Your task to perform on an android device: turn on location history Image 0: 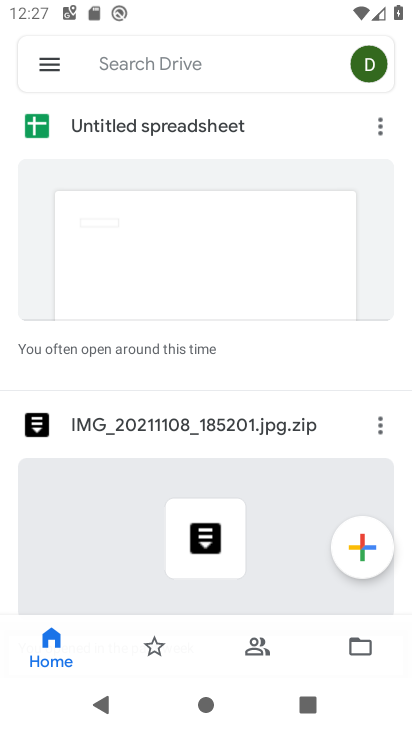
Step 0: press home button
Your task to perform on an android device: turn on location history Image 1: 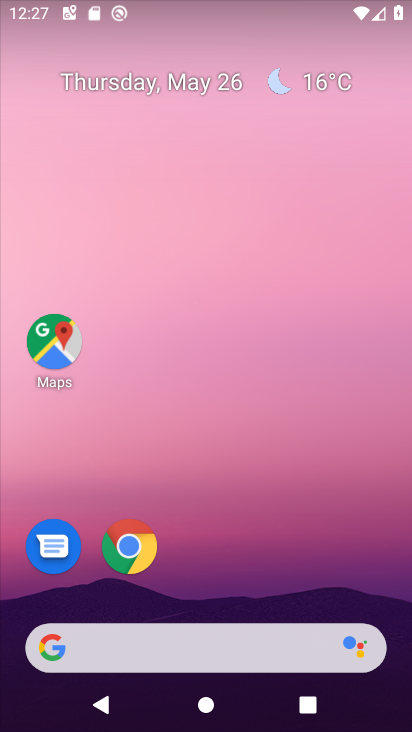
Step 1: drag from (172, 579) to (238, 194)
Your task to perform on an android device: turn on location history Image 2: 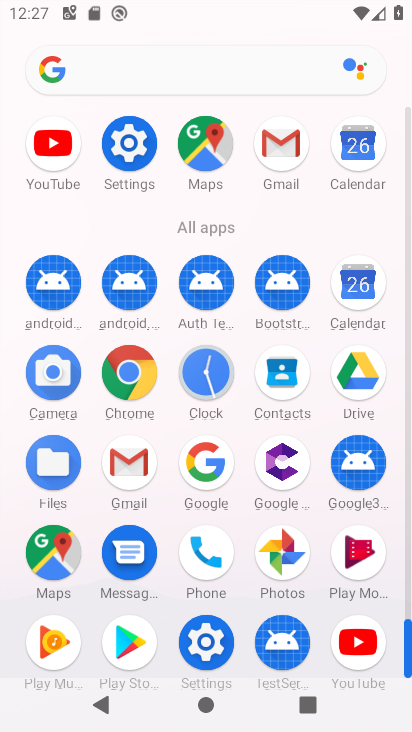
Step 2: click (124, 145)
Your task to perform on an android device: turn on location history Image 3: 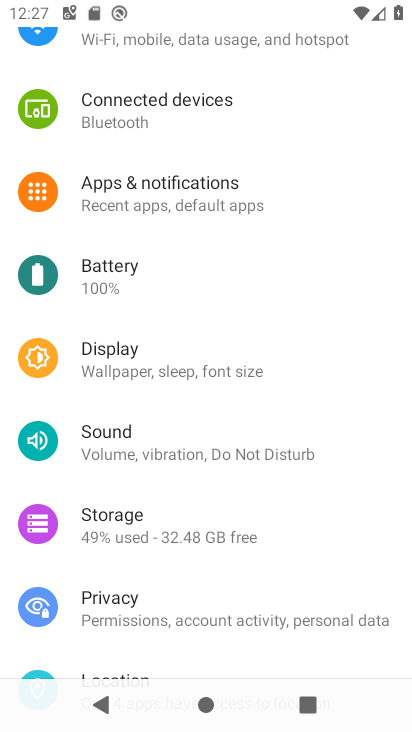
Step 3: drag from (134, 646) to (212, 285)
Your task to perform on an android device: turn on location history Image 4: 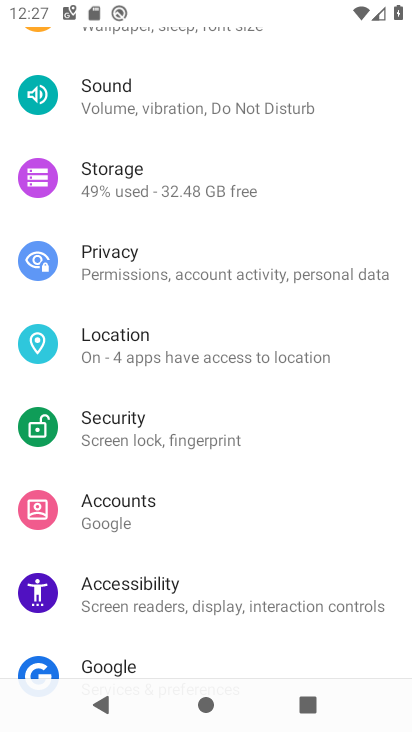
Step 4: click (153, 348)
Your task to perform on an android device: turn on location history Image 5: 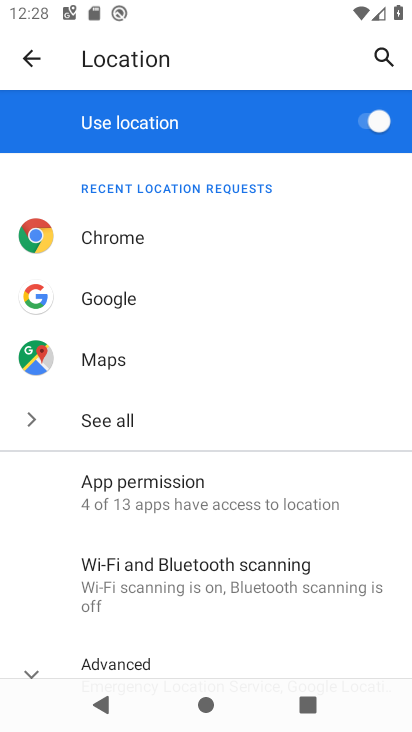
Step 5: drag from (96, 593) to (153, 262)
Your task to perform on an android device: turn on location history Image 6: 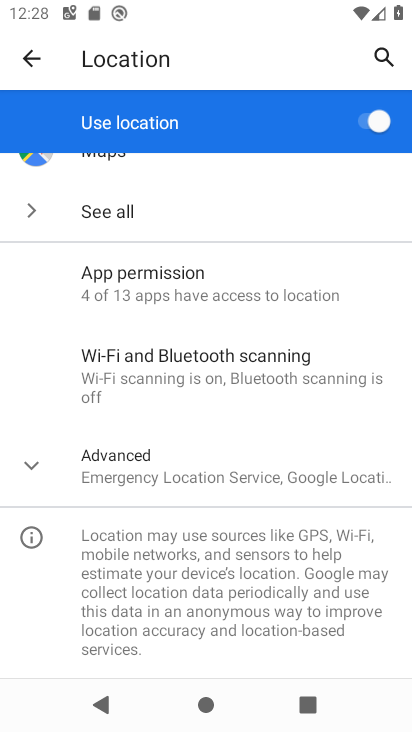
Step 6: click (34, 469)
Your task to perform on an android device: turn on location history Image 7: 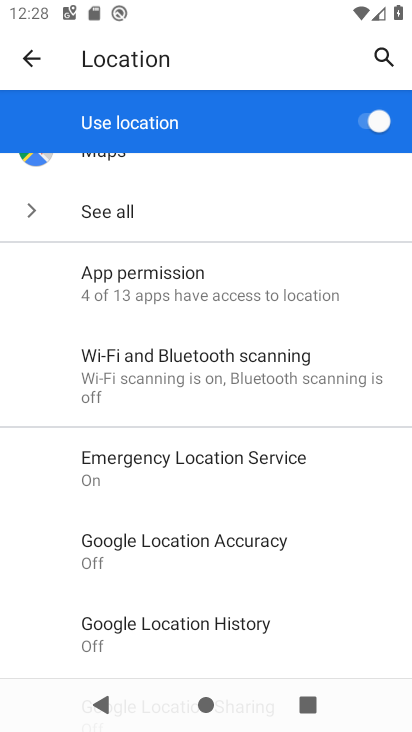
Step 7: drag from (129, 632) to (176, 391)
Your task to perform on an android device: turn on location history Image 8: 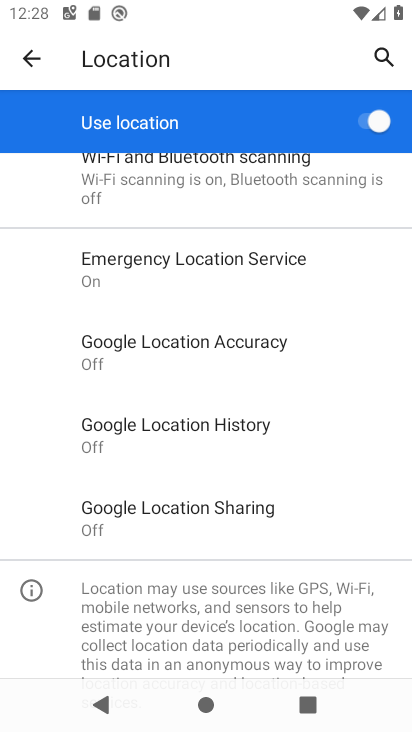
Step 8: click (197, 421)
Your task to perform on an android device: turn on location history Image 9: 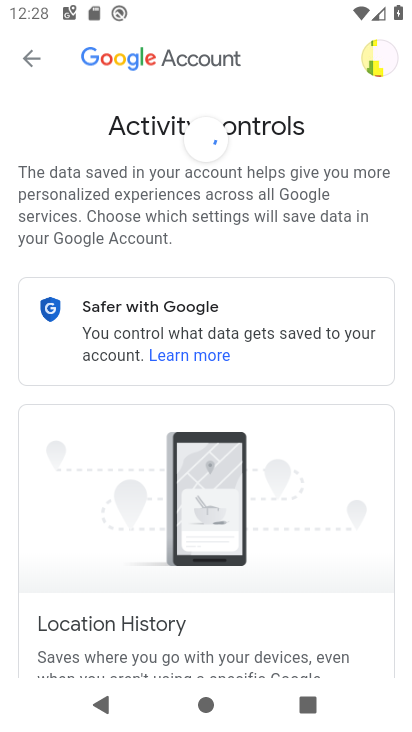
Step 9: drag from (284, 467) to (318, 244)
Your task to perform on an android device: turn on location history Image 10: 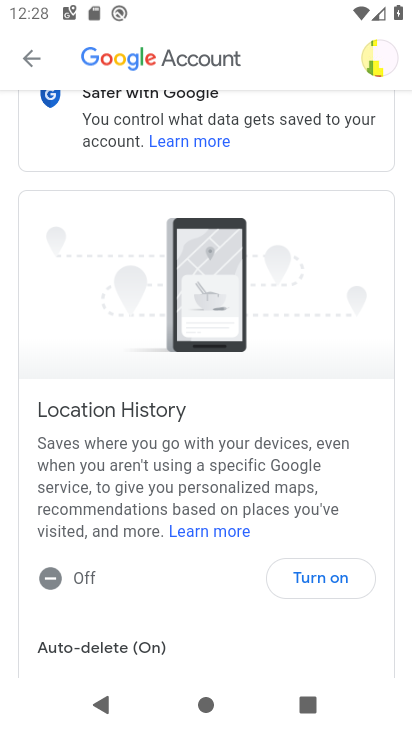
Step 10: click (312, 577)
Your task to perform on an android device: turn on location history Image 11: 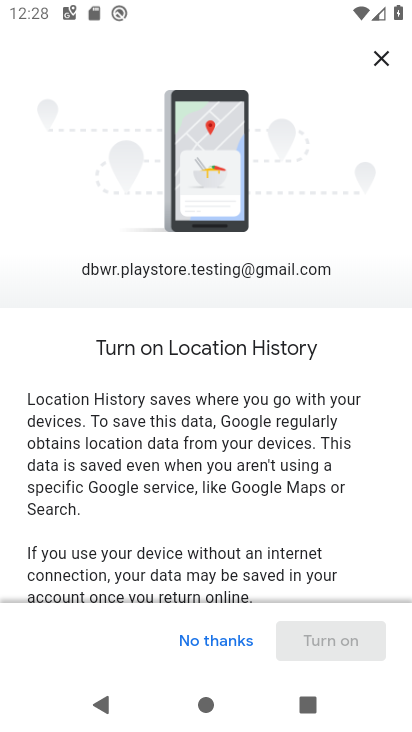
Step 11: task complete